Your task to perform on an android device: What's the weather going to be tomorrow? Image 0: 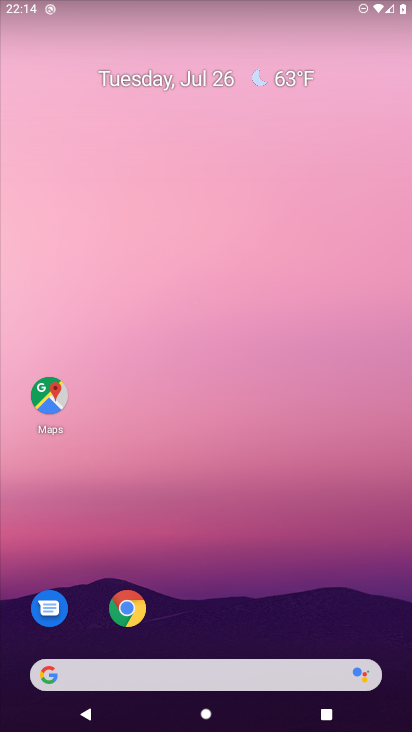
Step 0: click (100, 673)
Your task to perform on an android device: What's the weather going to be tomorrow? Image 1: 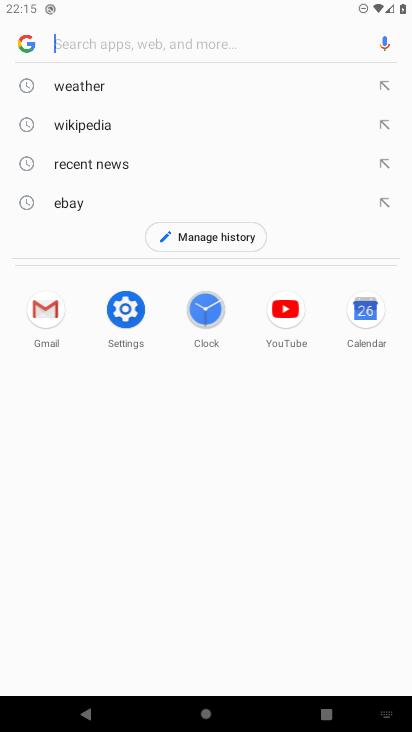
Step 1: type "What's the weather going to be tomorrow?"
Your task to perform on an android device: What's the weather going to be tomorrow? Image 2: 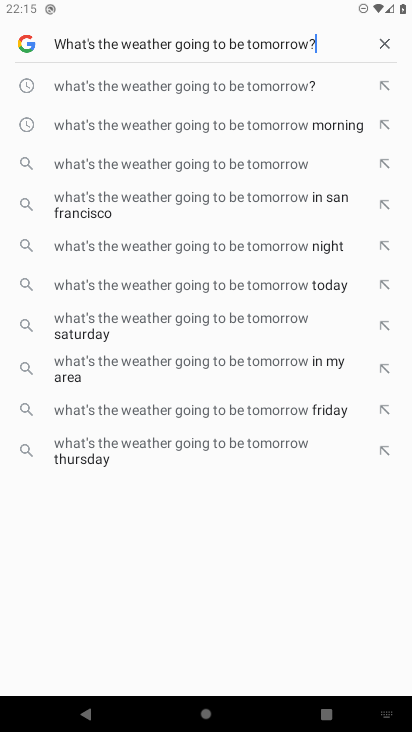
Step 2: type ""
Your task to perform on an android device: What's the weather going to be tomorrow? Image 3: 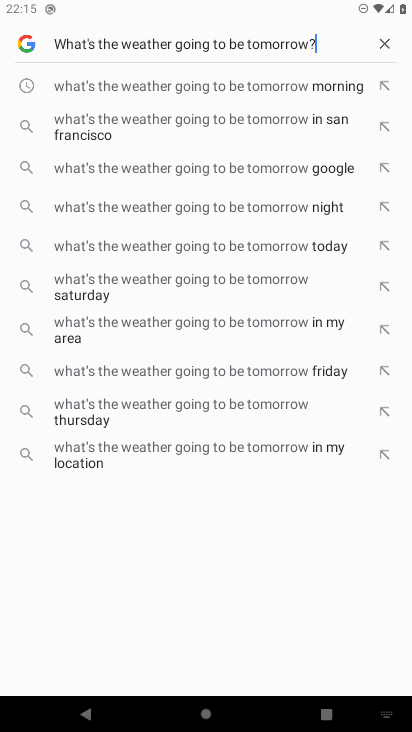
Step 3: type ""
Your task to perform on an android device: What's the weather going to be tomorrow? Image 4: 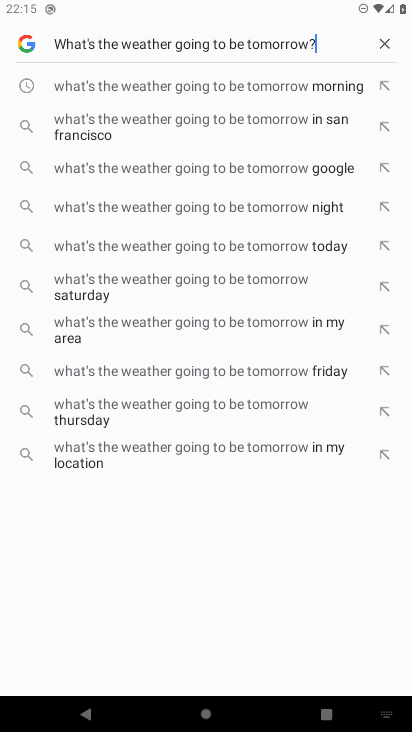
Step 4: task complete